Your task to perform on an android device: View the shopping cart on target. Search for "razer blade" on target, select the first entry, and add it to the cart. Image 0: 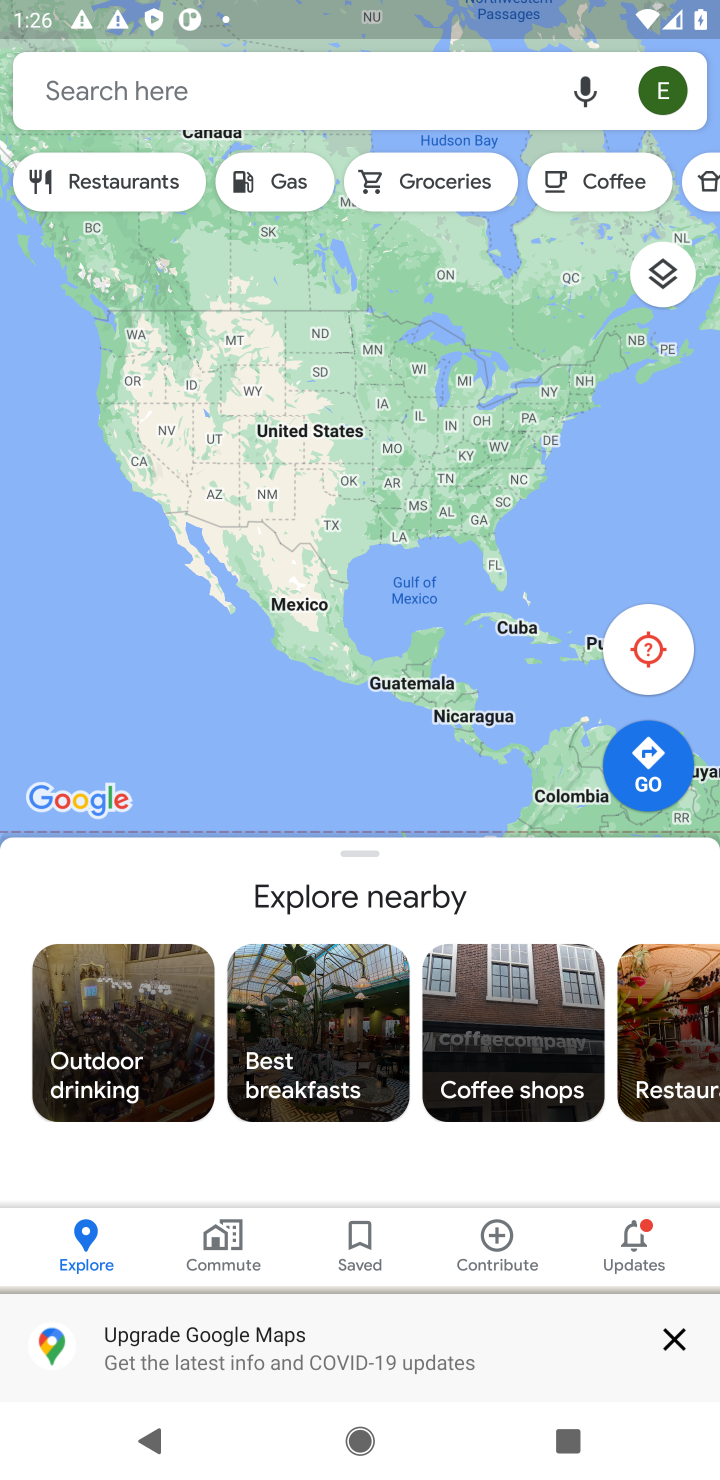
Step 0: press home button
Your task to perform on an android device: View the shopping cart on target. Search for "razer blade" on target, select the first entry, and add it to the cart. Image 1: 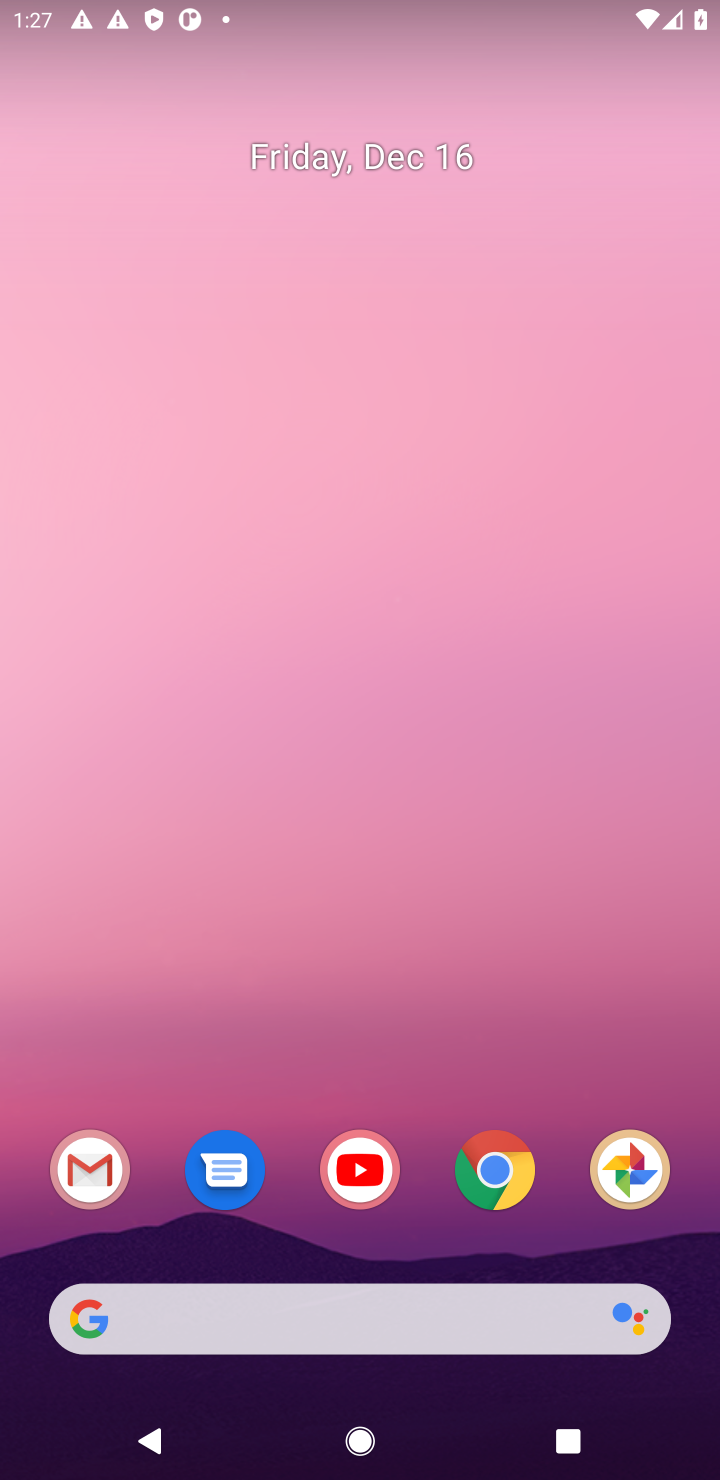
Step 1: click (504, 1169)
Your task to perform on an android device: View the shopping cart on target. Search for "razer blade" on target, select the first entry, and add it to the cart. Image 2: 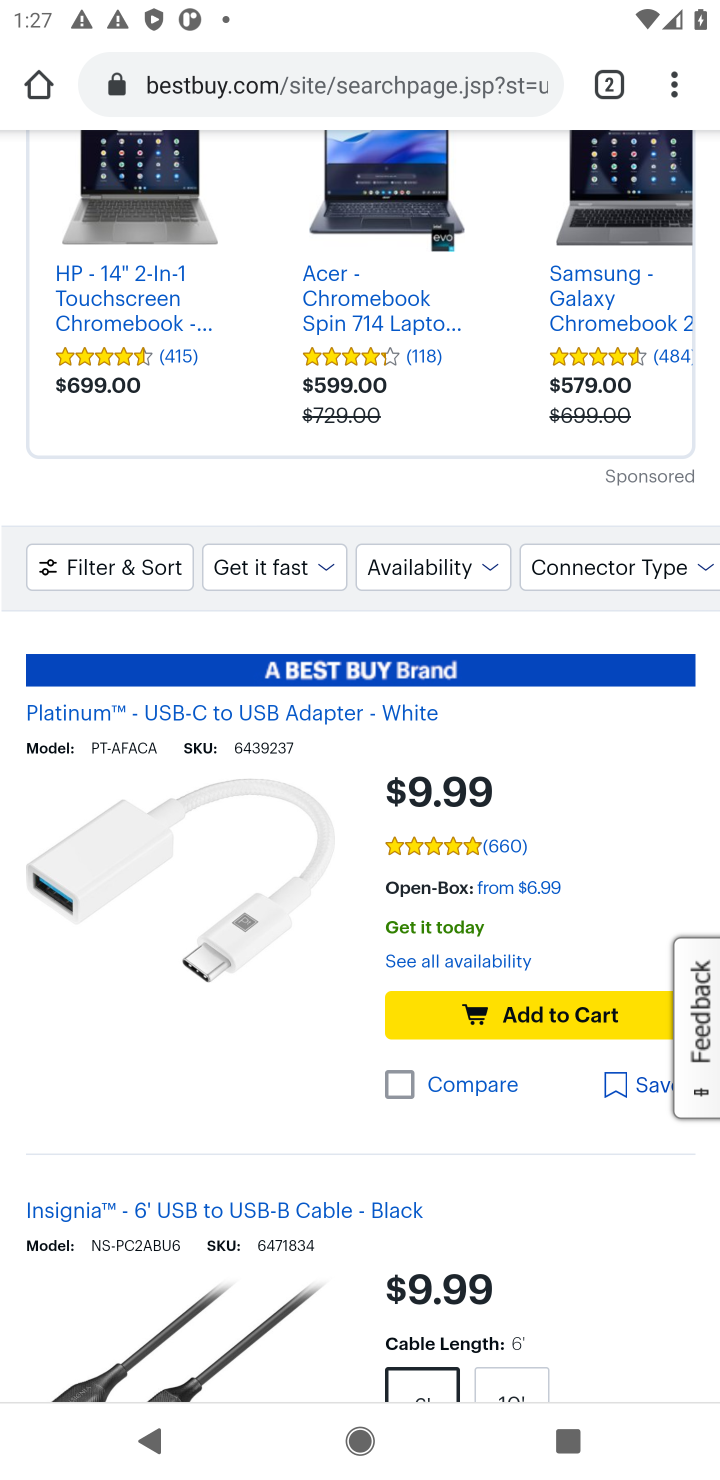
Step 2: click (285, 90)
Your task to perform on an android device: View the shopping cart on target. Search for "razer blade" on target, select the first entry, and add it to the cart. Image 3: 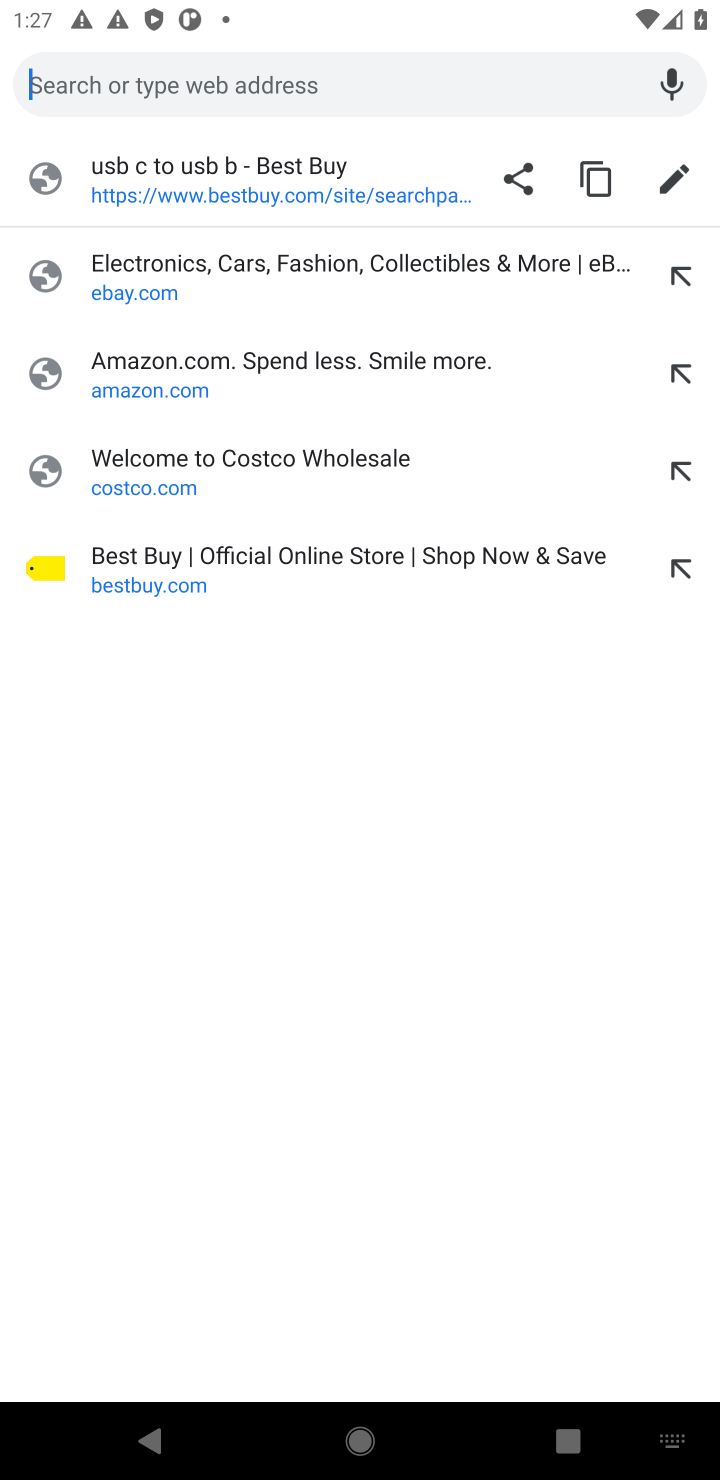
Step 3: type "target.com"
Your task to perform on an android device: View the shopping cart on target. Search for "razer blade" on target, select the first entry, and add it to the cart. Image 4: 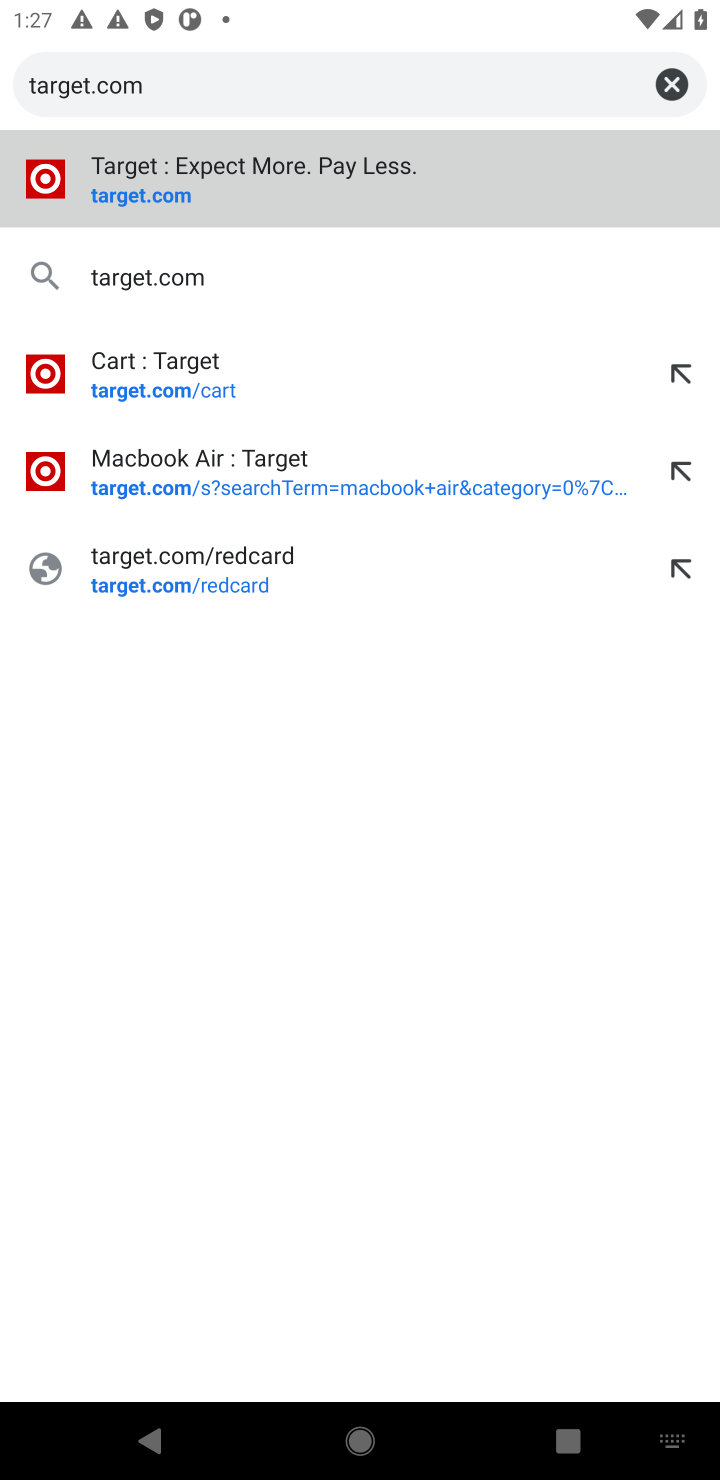
Step 4: click (119, 182)
Your task to perform on an android device: View the shopping cart on target. Search for "razer blade" on target, select the first entry, and add it to the cart. Image 5: 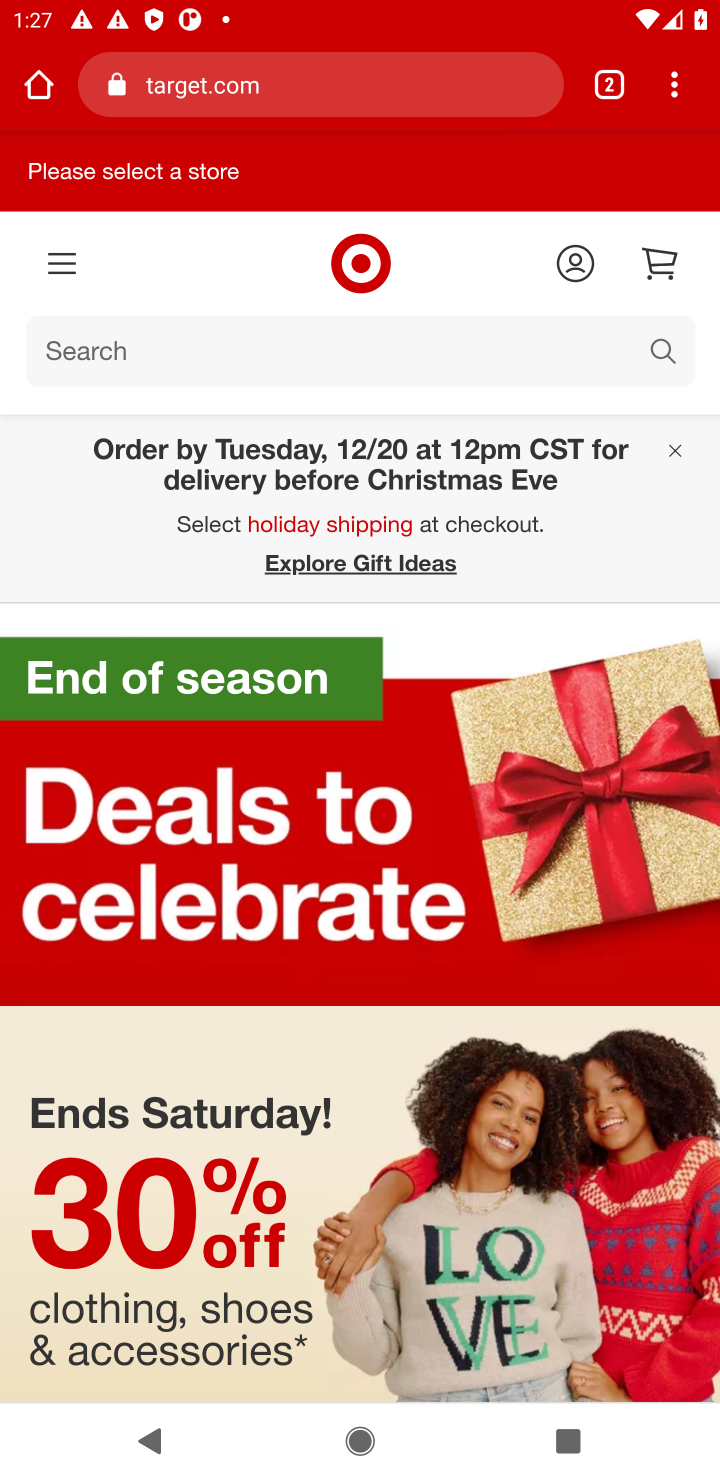
Step 5: click (657, 270)
Your task to perform on an android device: View the shopping cart on target. Search for "razer blade" on target, select the first entry, and add it to the cart. Image 6: 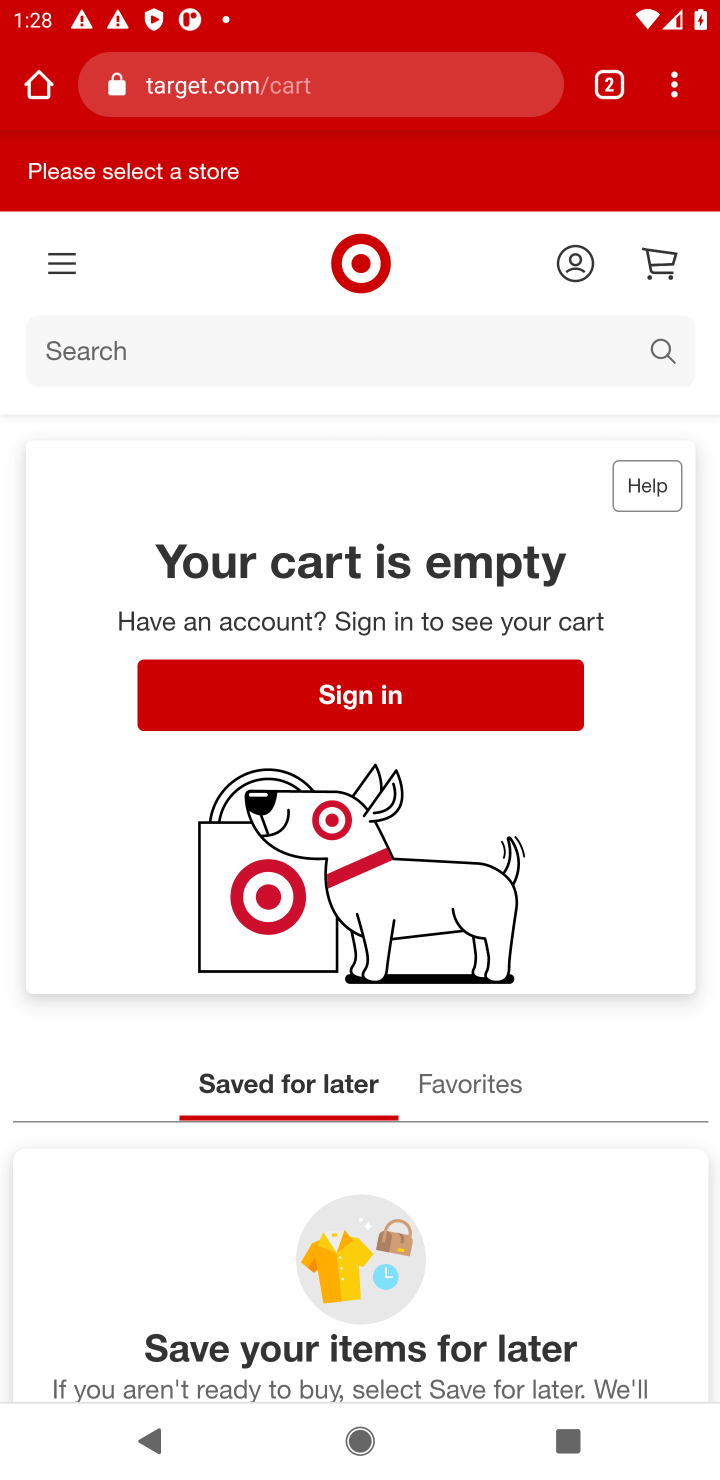
Step 6: click (92, 349)
Your task to perform on an android device: View the shopping cart on target. Search for "razer blade" on target, select the first entry, and add it to the cart. Image 7: 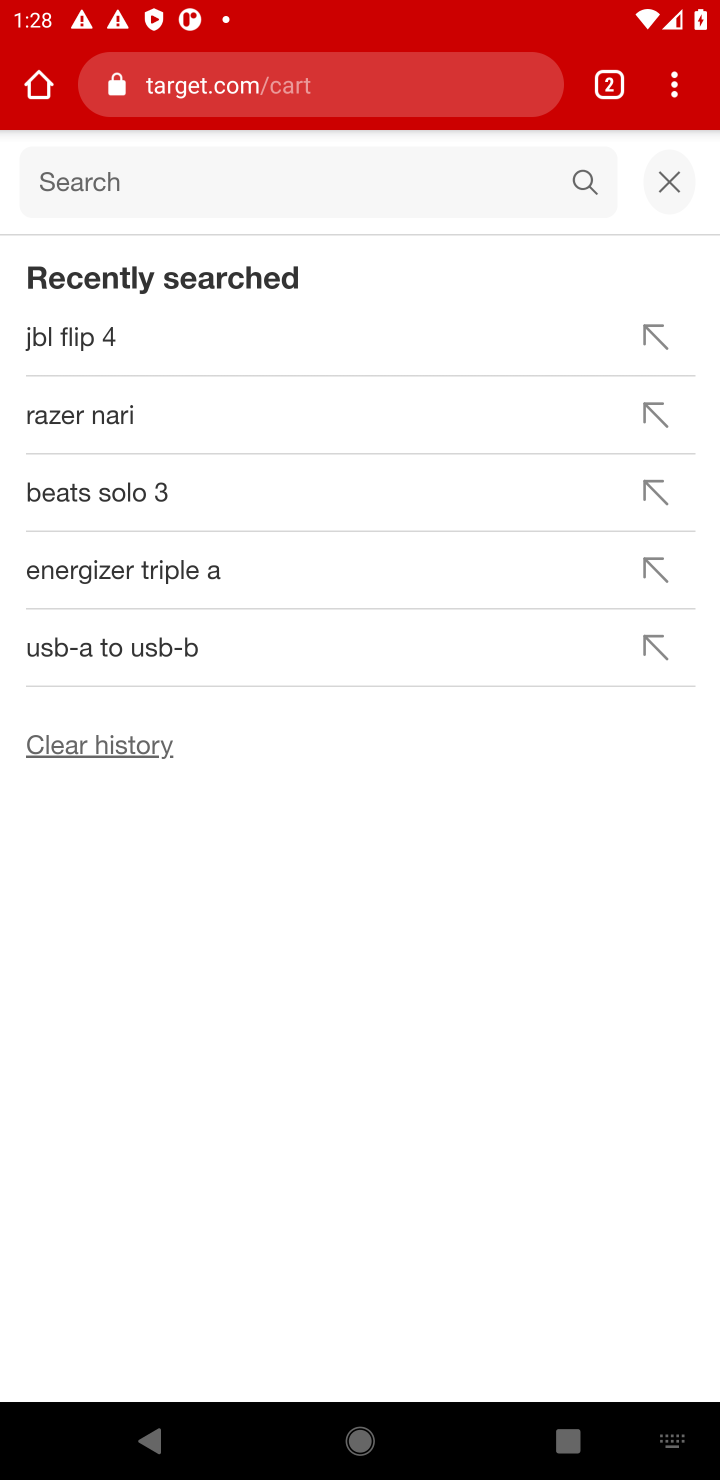
Step 7: type "razer blade"
Your task to perform on an android device: View the shopping cart on target. Search for "razer blade" on target, select the first entry, and add it to the cart. Image 8: 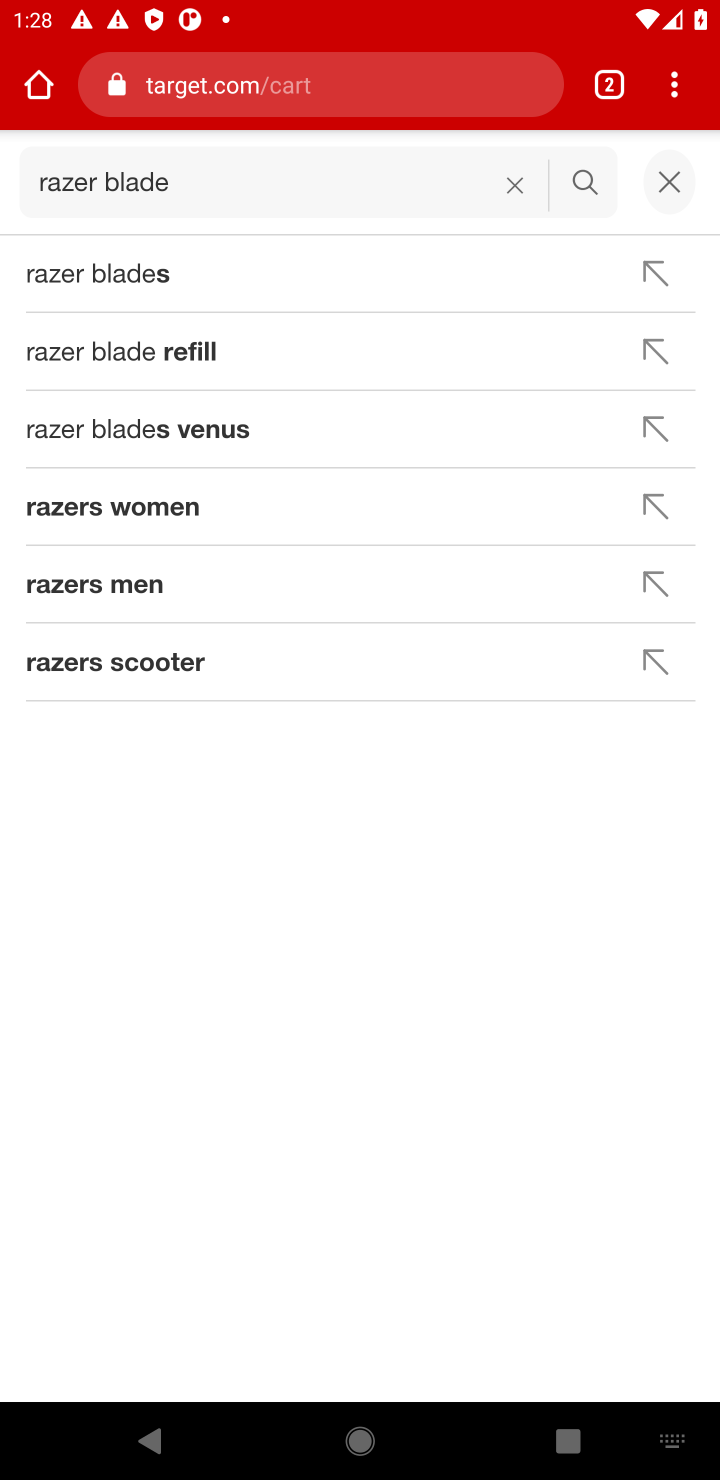
Step 8: click (576, 175)
Your task to perform on an android device: View the shopping cart on target. Search for "razer blade" on target, select the first entry, and add it to the cart. Image 9: 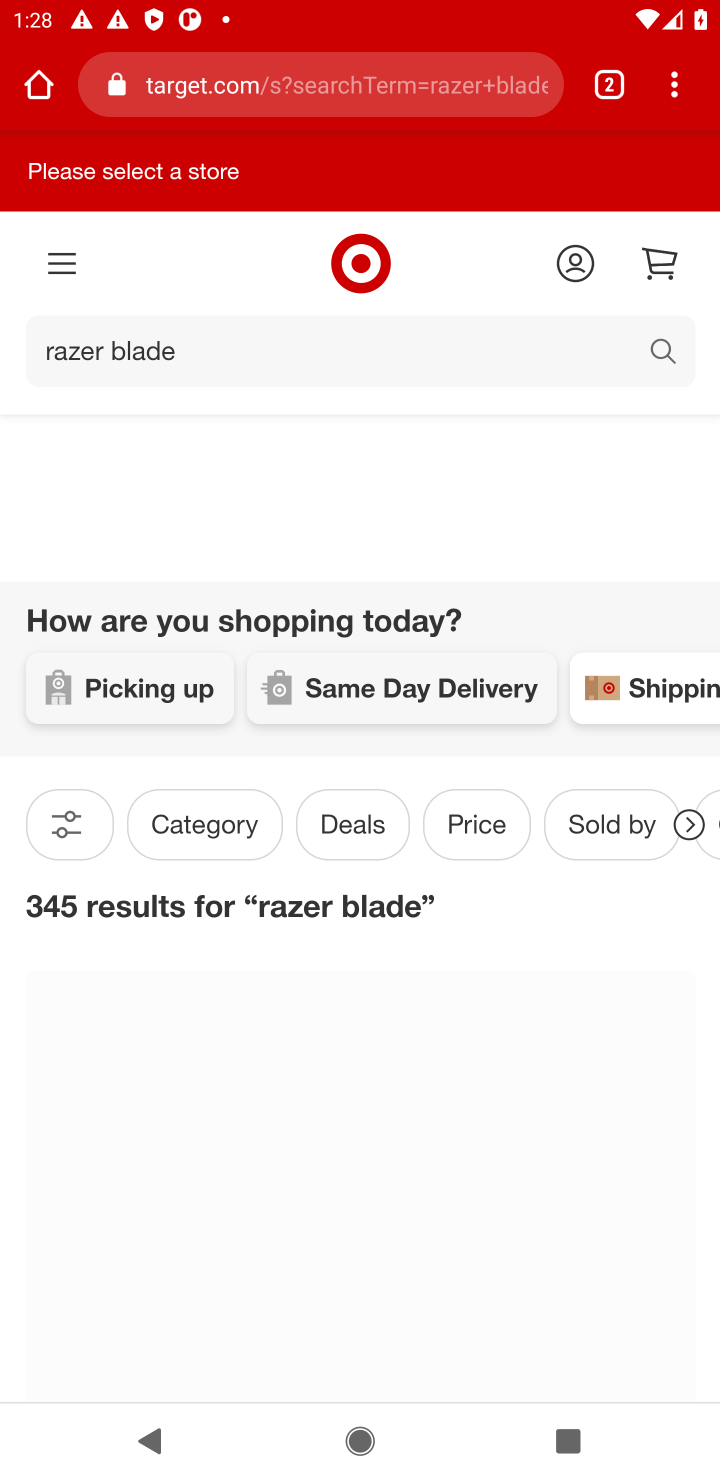
Step 9: task complete